Your task to perform on an android device: Open notification settings Image 0: 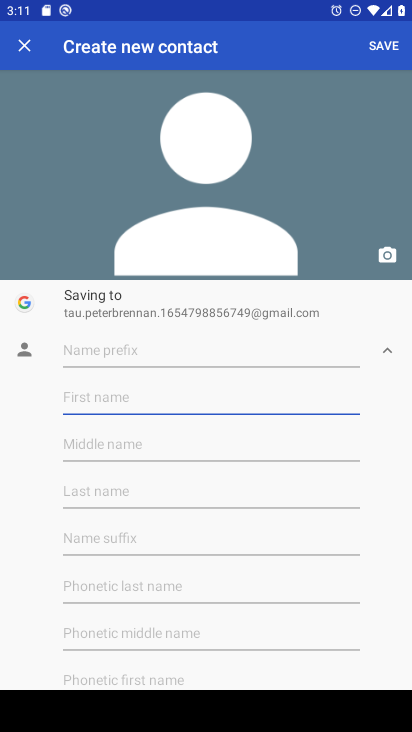
Step 0: press home button
Your task to perform on an android device: Open notification settings Image 1: 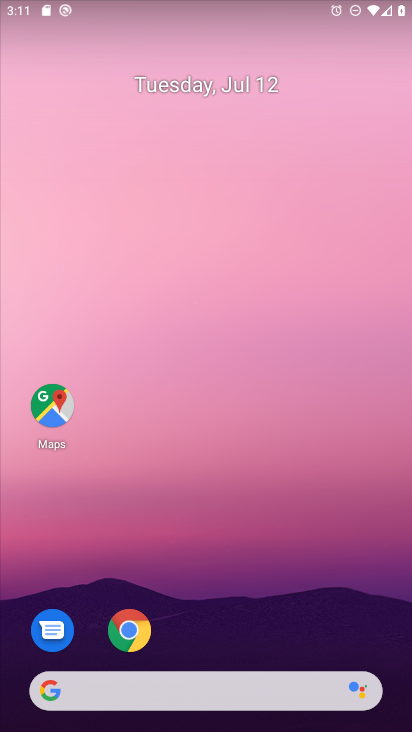
Step 1: drag from (245, 644) to (238, 84)
Your task to perform on an android device: Open notification settings Image 2: 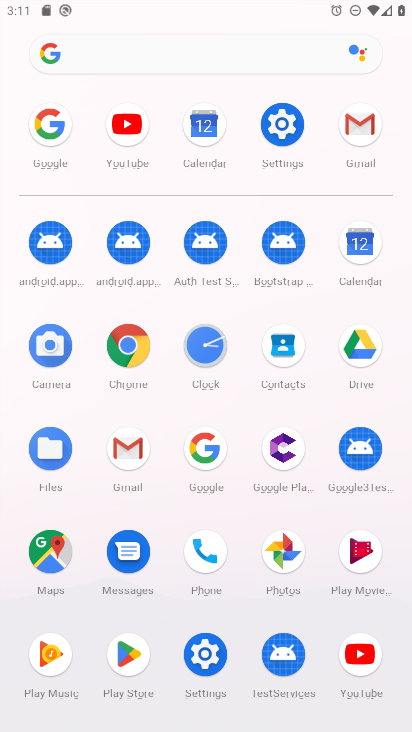
Step 2: click (268, 129)
Your task to perform on an android device: Open notification settings Image 3: 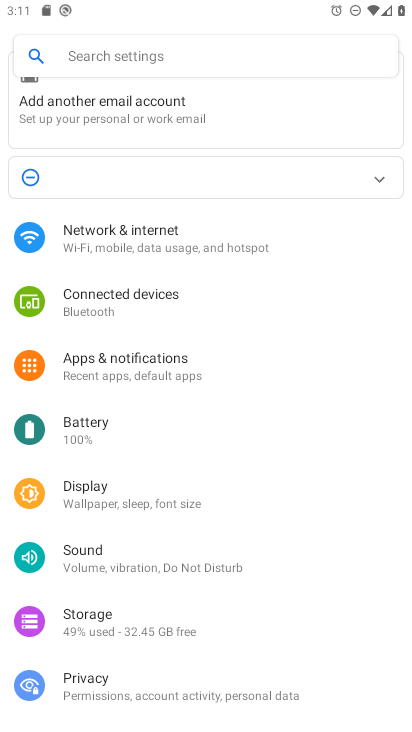
Step 3: click (145, 358)
Your task to perform on an android device: Open notification settings Image 4: 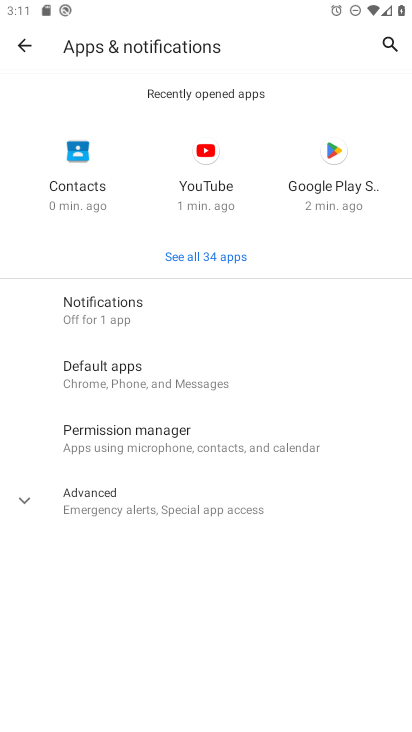
Step 4: click (138, 320)
Your task to perform on an android device: Open notification settings Image 5: 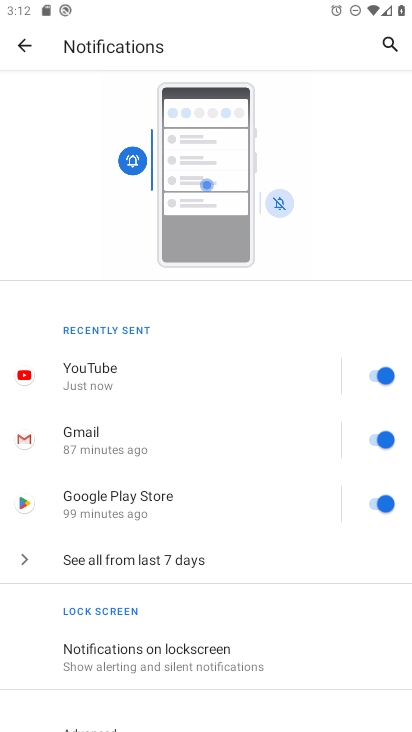
Step 5: task complete